Your task to perform on an android device: Show the shopping cart on amazon. Image 0: 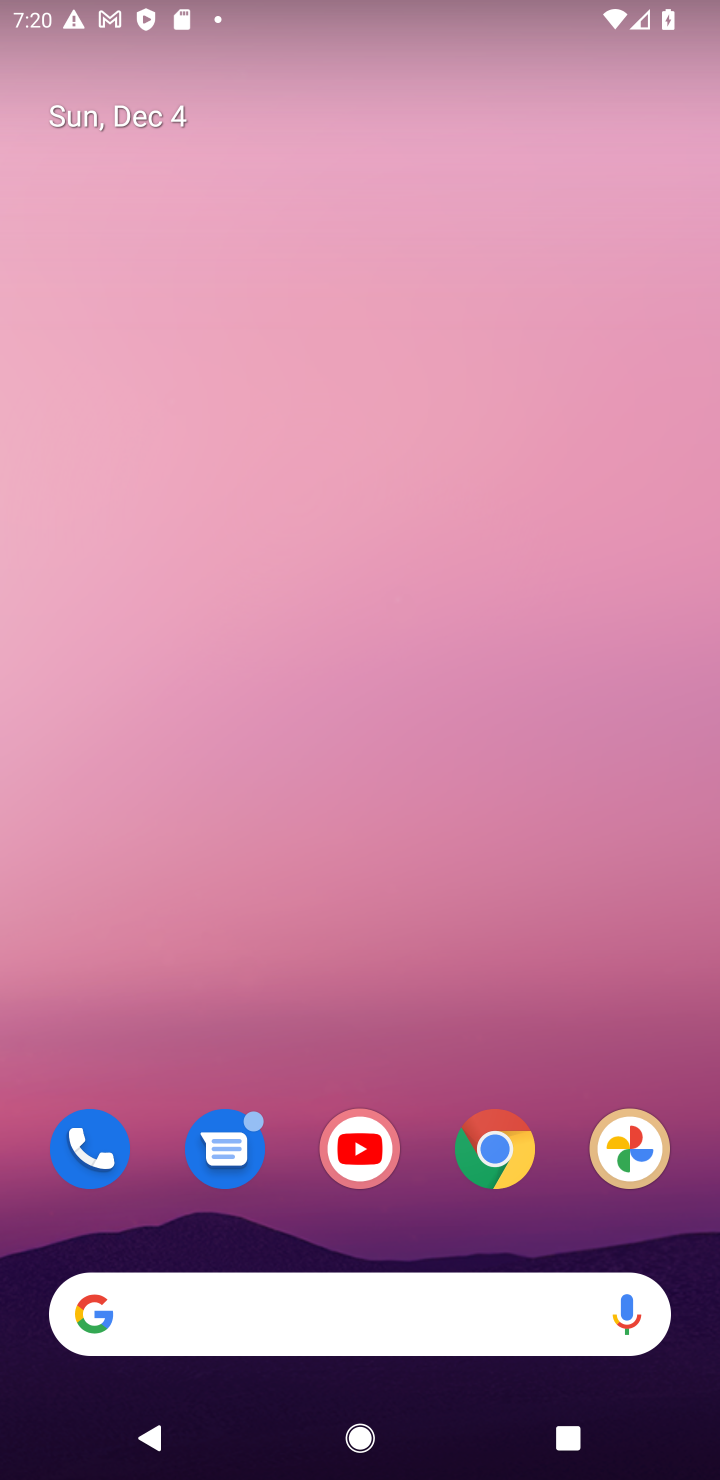
Step 0: drag from (418, 893) to (384, 318)
Your task to perform on an android device: Show the shopping cart on amazon. Image 1: 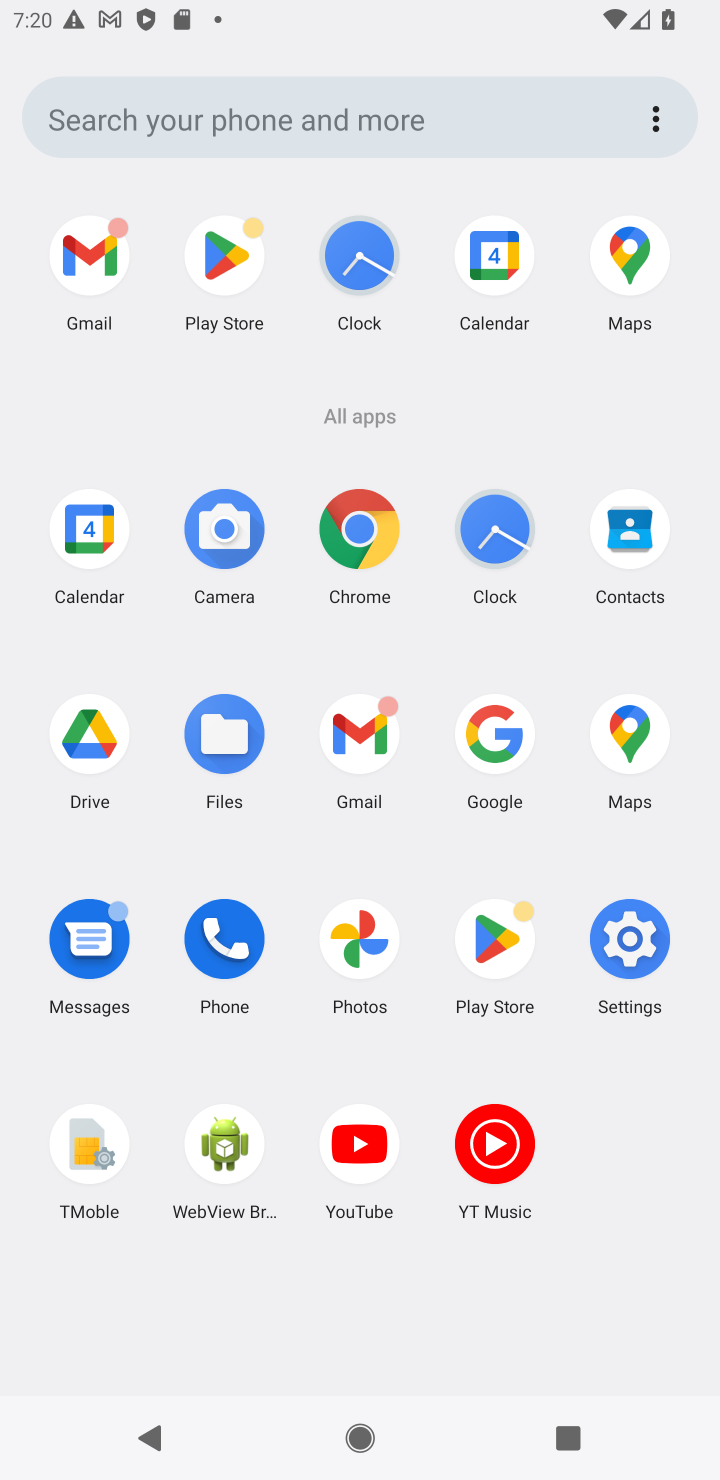
Step 1: click (498, 760)
Your task to perform on an android device: Show the shopping cart on amazon. Image 2: 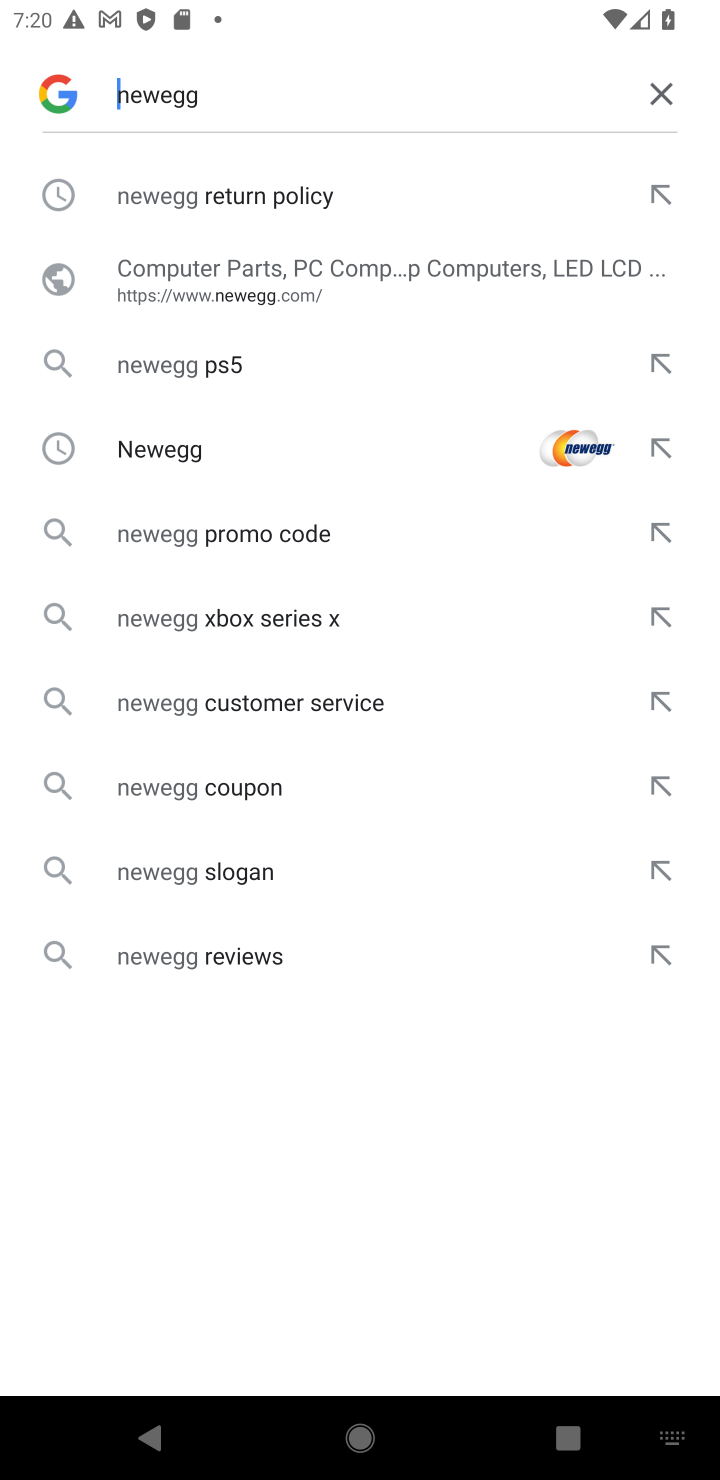
Step 2: click (272, 110)
Your task to perform on an android device: Show the shopping cart on amazon. Image 3: 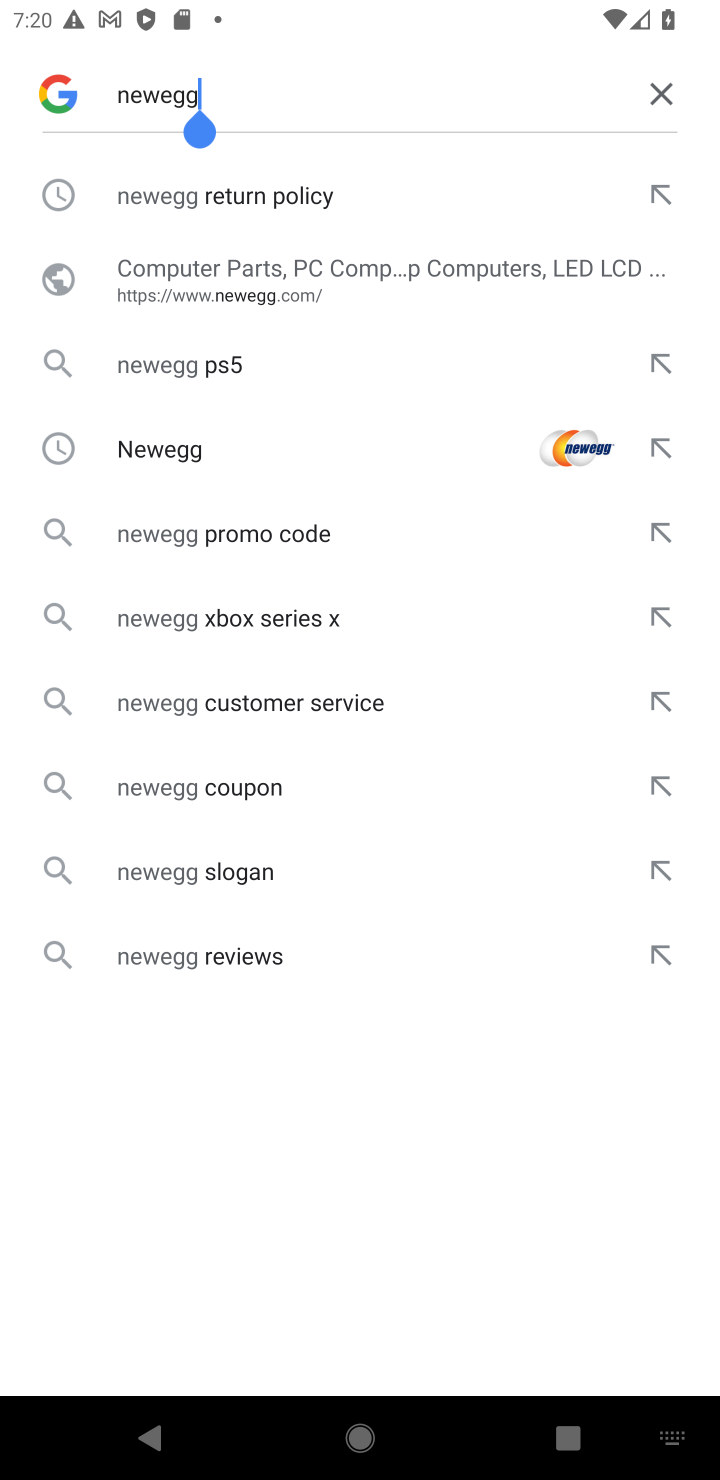
Step 3: click (655, 103)
Your task to perform on an android device: Show the shopping cart on amazon. Image 4: 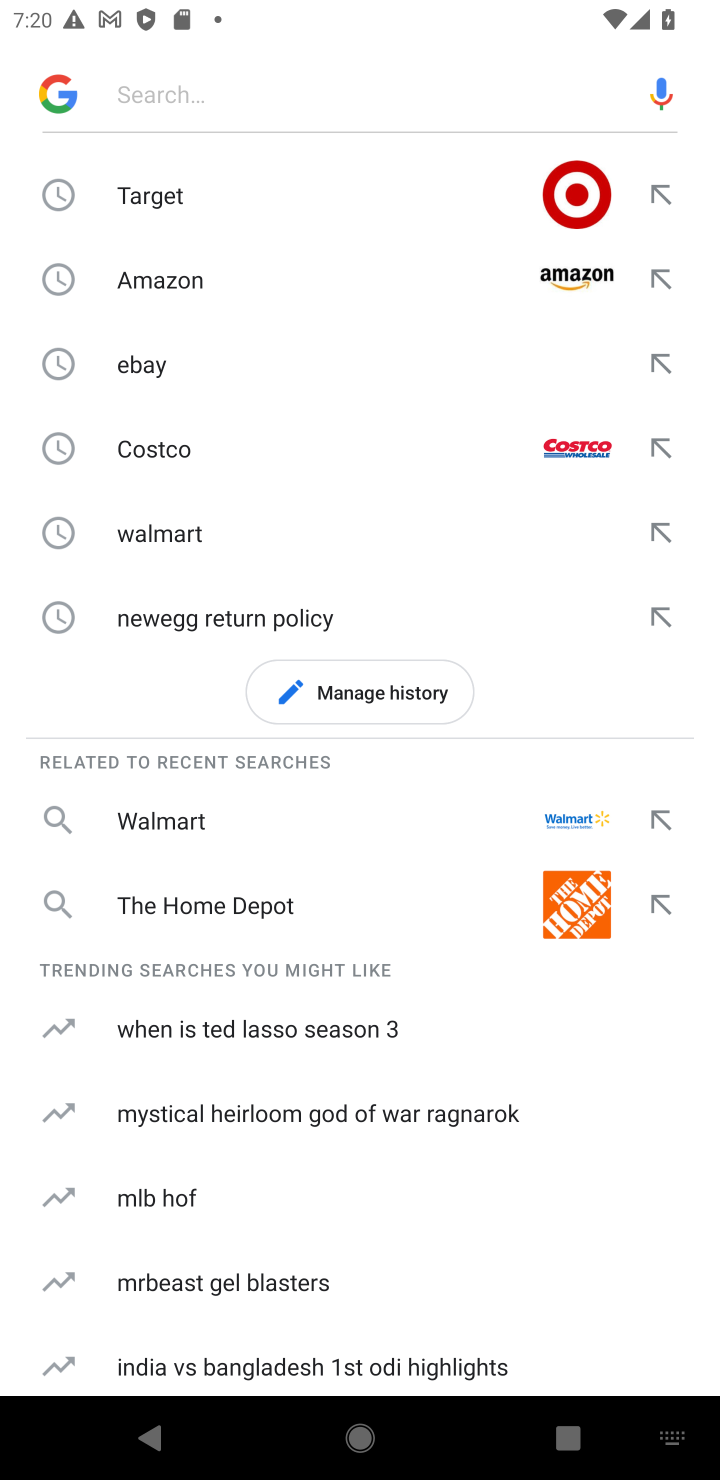
Step 4: click (169, 251)
Your task to perform on an android device: Show the shopping cart on amazon. Image 5: 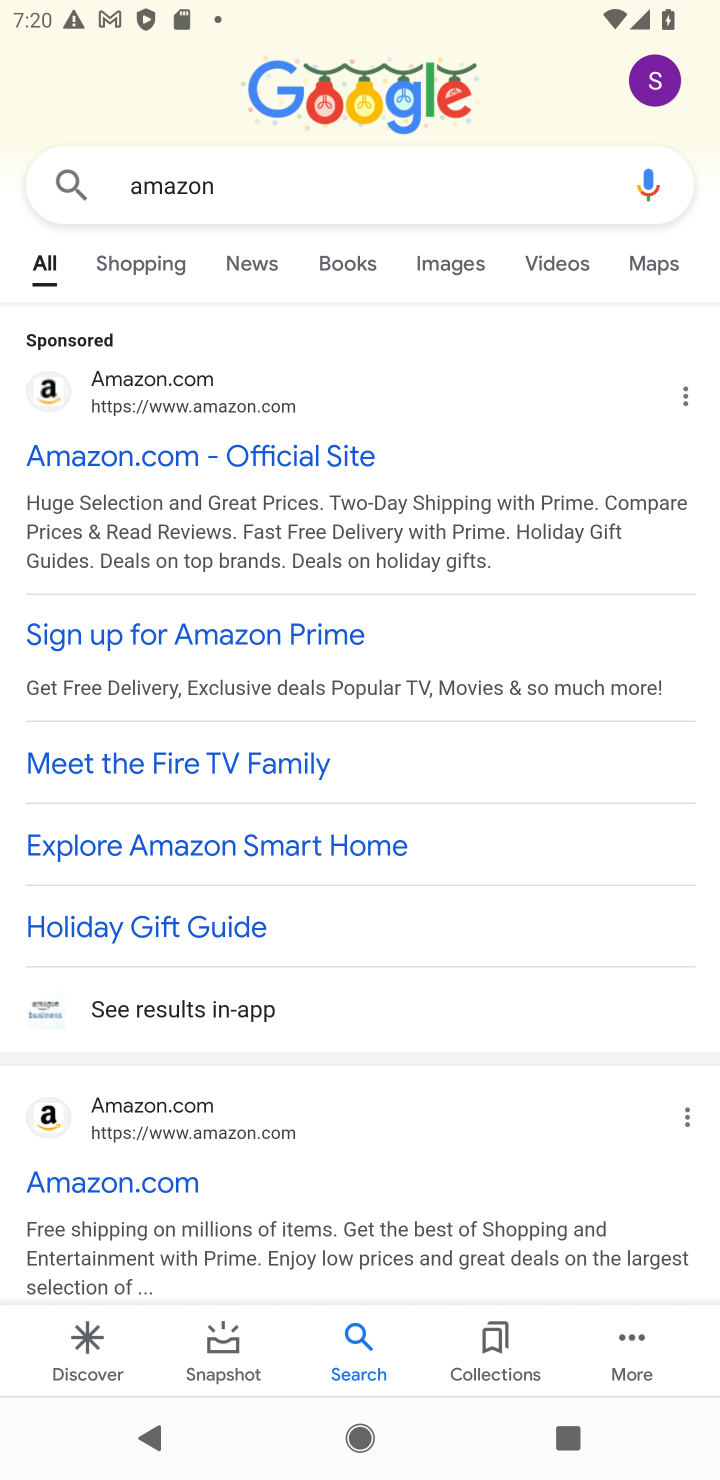
Step 5: click (202, 446)
Your task to perform on an android device: Show the shopping cart on amazon. Image 6: 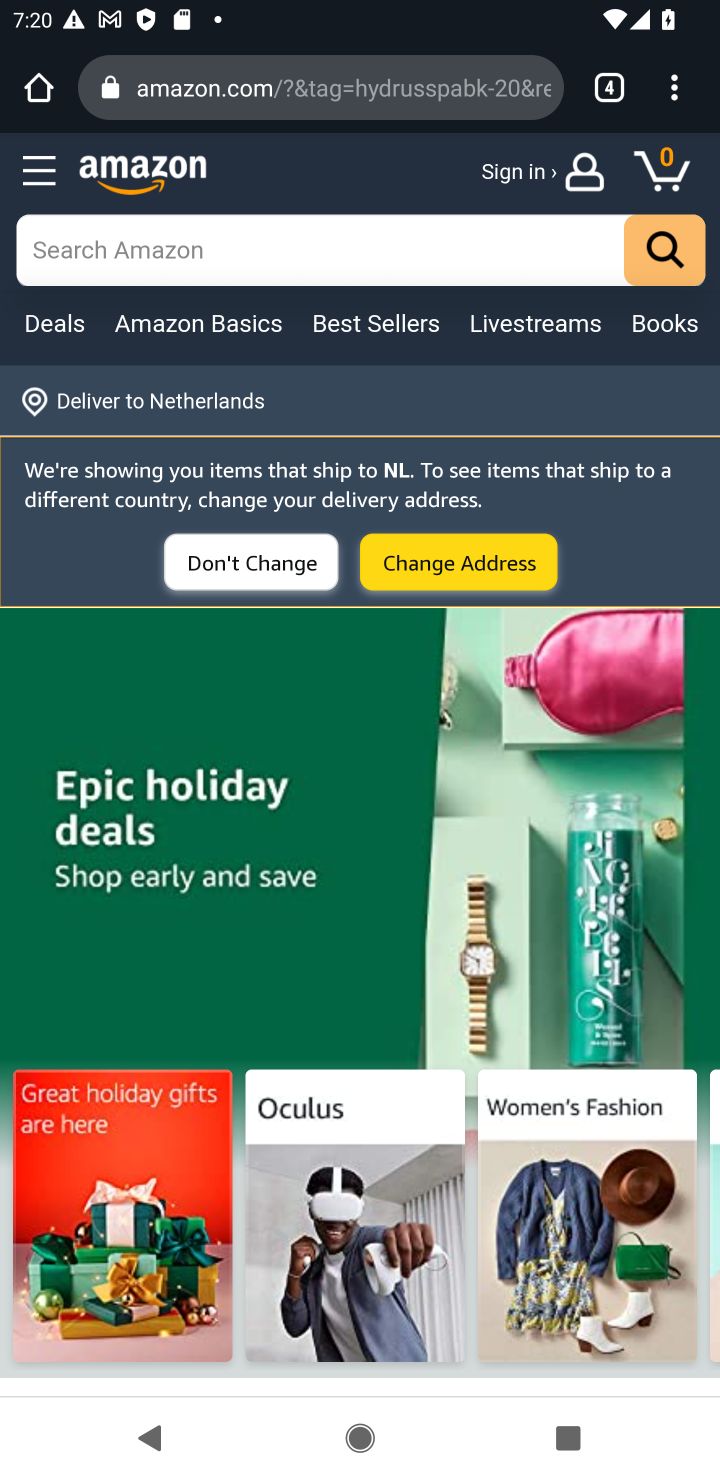
Step 6: click (662, 179)
Your task to perform on an android device: Show the shopping cart on amazon. Image 7: 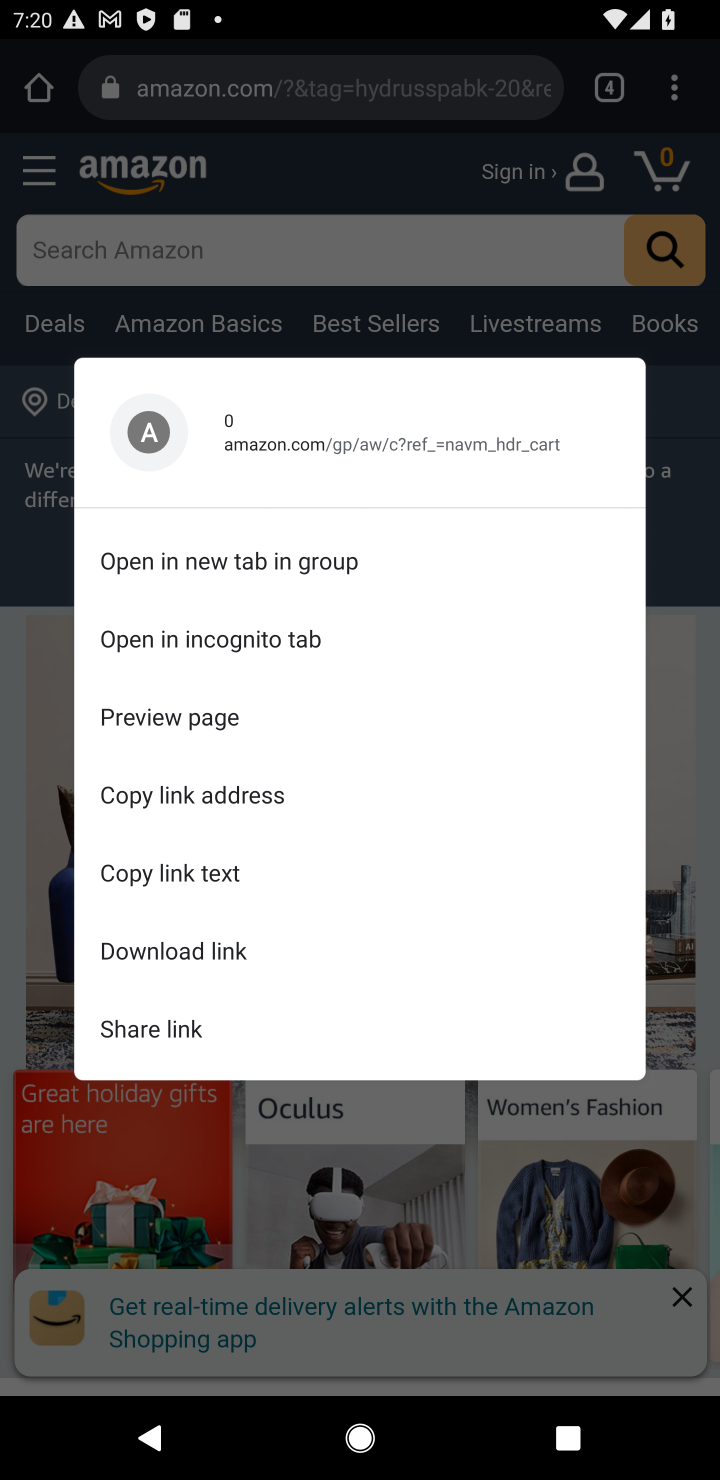
Step 7: click (688, 565)
Your task to perform on an android device: Show the shopping cart on amazon. Image 8: 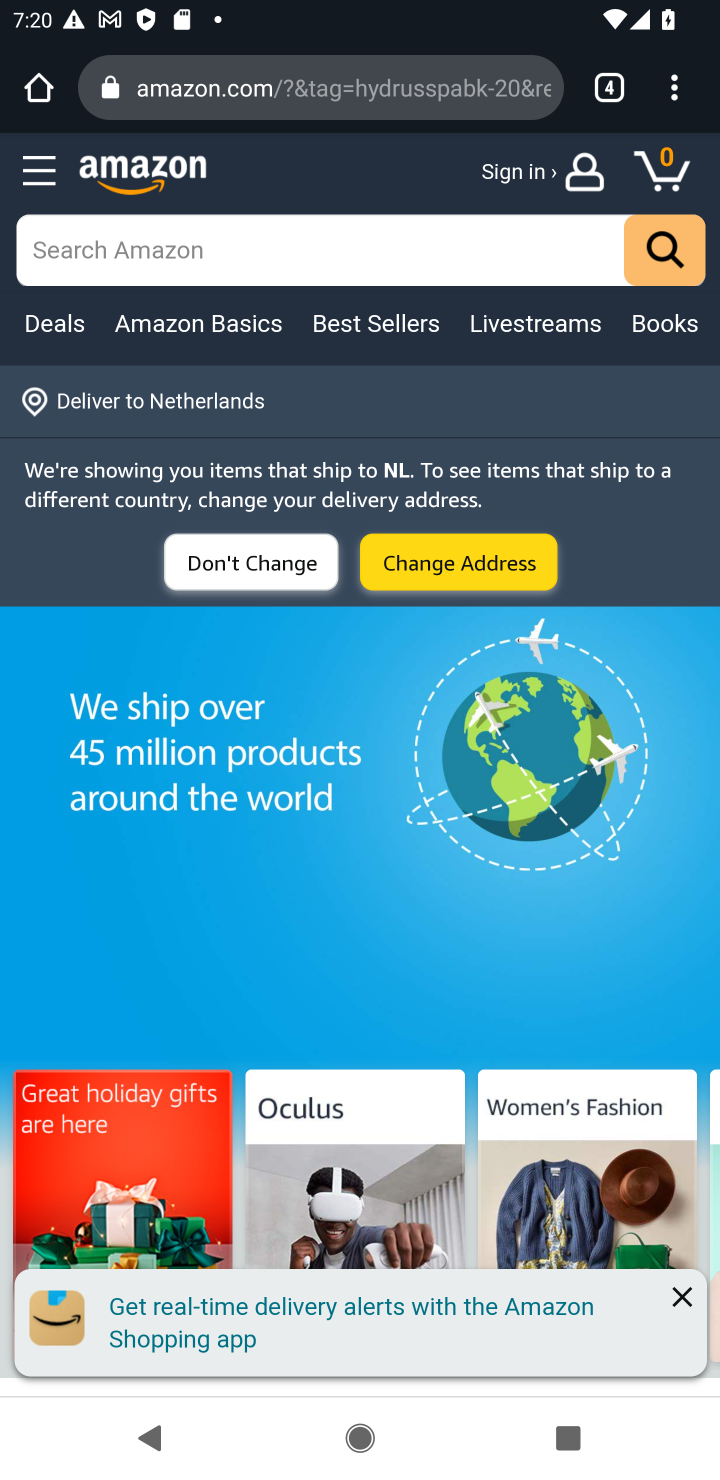
Step 8: click (658, 182)
Your task to perform on an android device: Show the shopping cart on amazon. Image 9: 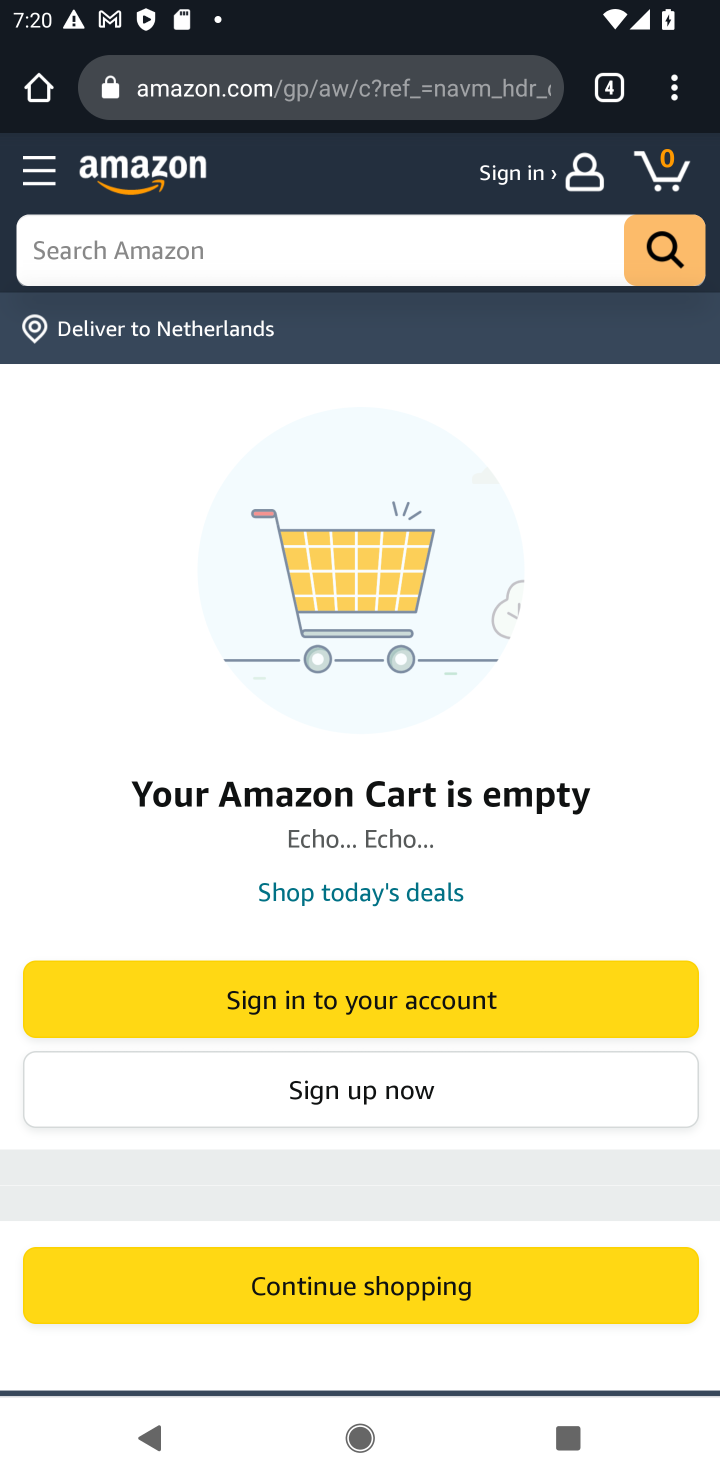
Step 9: task complete